Your task to perform on an android device: turn on sleep mode Image 0: 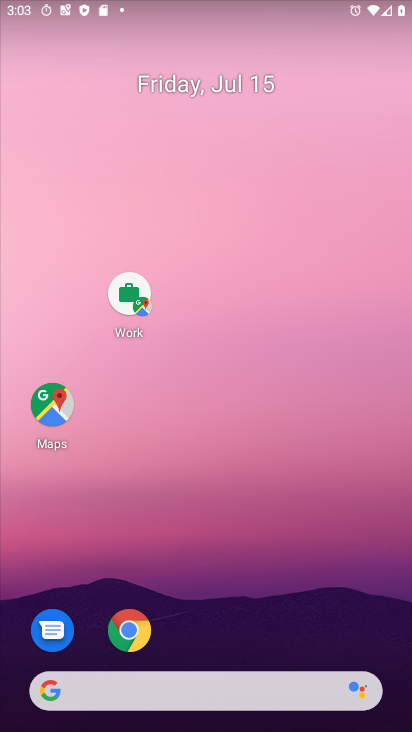
Step 0: drag from (191, 653) to (196, 205)
Your task to perform on an android device: turn on sleep mode Image 1: 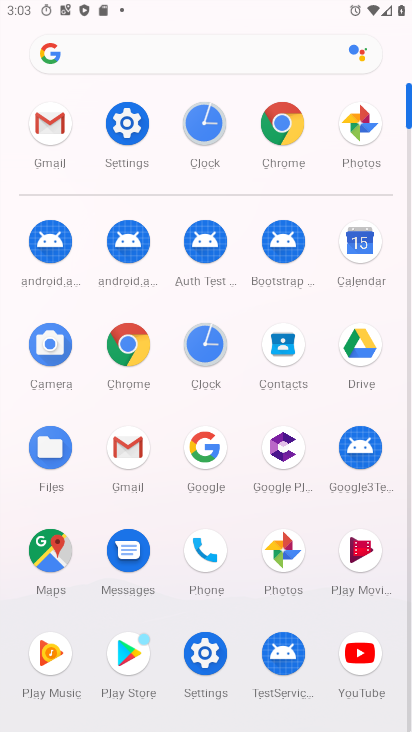
Step 1: click (129, 136)
Your task to perform on an android device: turn on sleep mode Image 2: 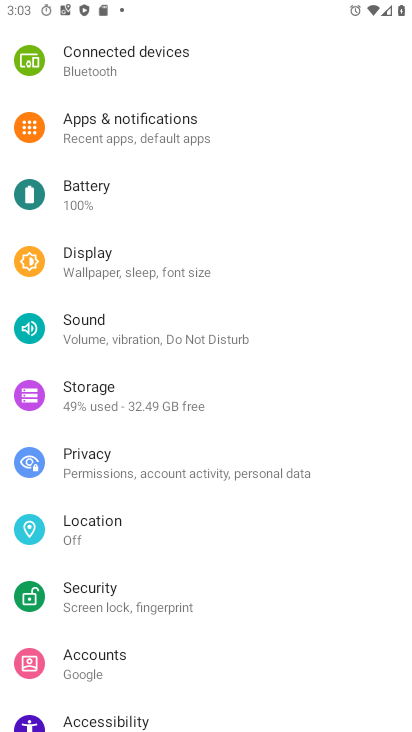
Step 2: click (96, 266)
Your task to perform on an android device: turn on sleep mode Image 3: 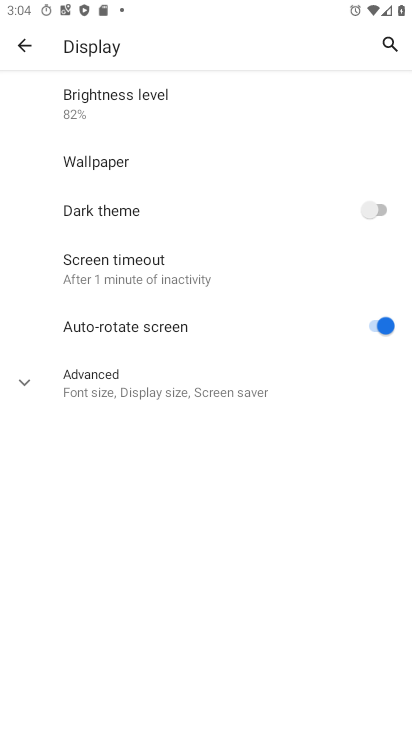
Step 3: click (123, 270)
Your task to perform on an android device: turn on sleep mode Image 4: 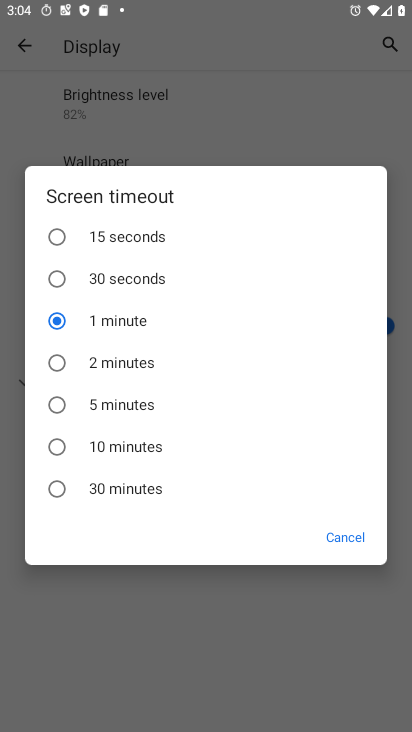
Step 4: click (128, 420)
Your task to perform on an android device: turn on sleep mode Image 5: 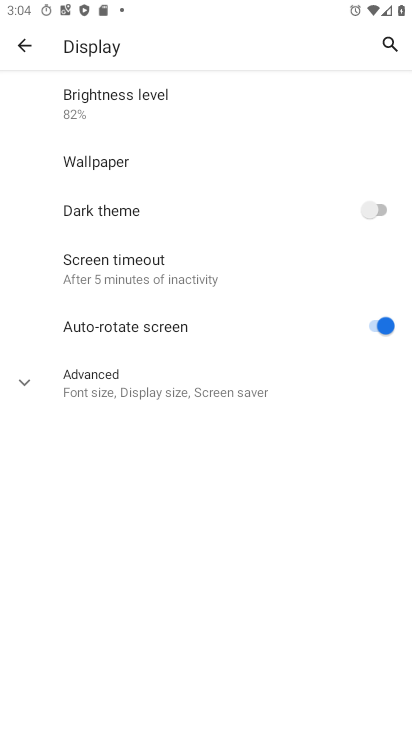
Step 5: task complete